Your task to perform on an android device: Go to CNN.com Image 0: 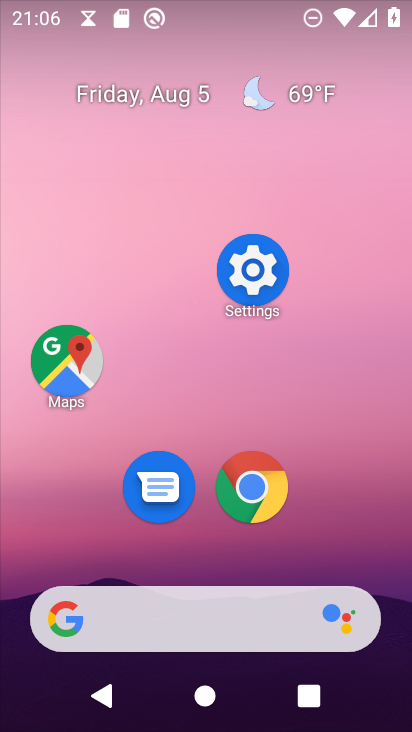
Step 0: click (251, 495)
Your task to perform on an android device: Go to CNN.com Image 1: 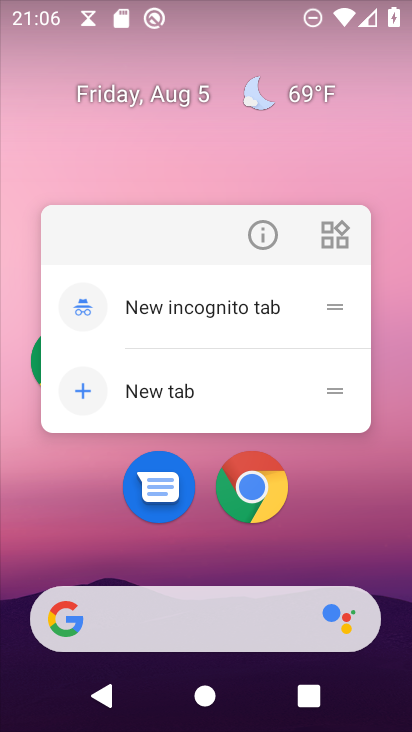
Step 1: click (251, 495)
Your task to perform on an android device: Go to CNN.com Image 2: 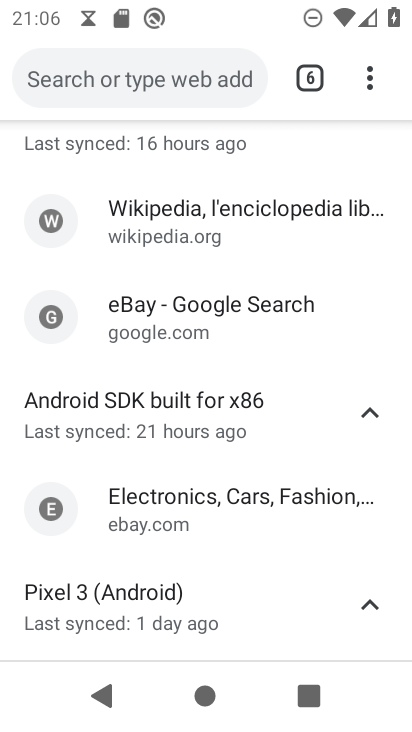
Step 2: drag from (371, 82) to (265, 162)
Your task to perform on an android device: Go to CNN.com Image 3: 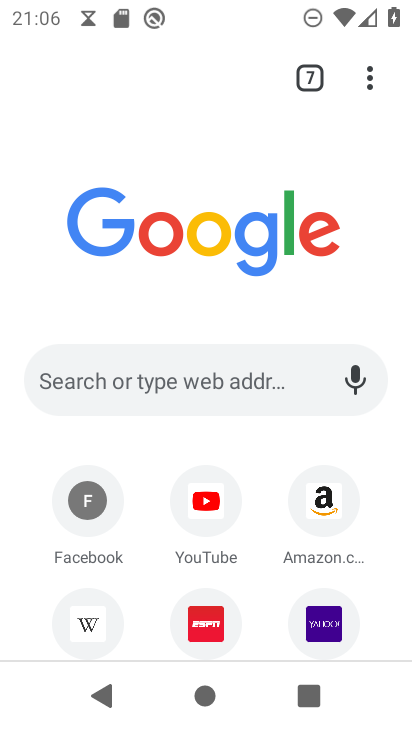
Step 3: drag from (272, 602) to (263, 315)
Your task to perform on an android device: Go to CNN.com Image 4: 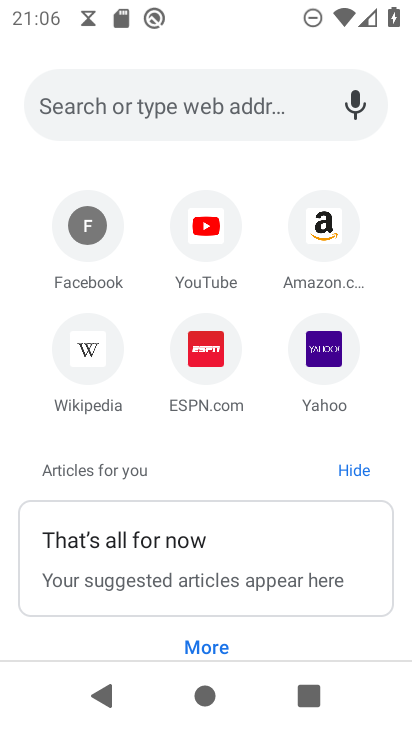
Step 4: drag from (264, 272) to (245, 476)
Your task to perform on an android device: Go to CNN.com Image 5: 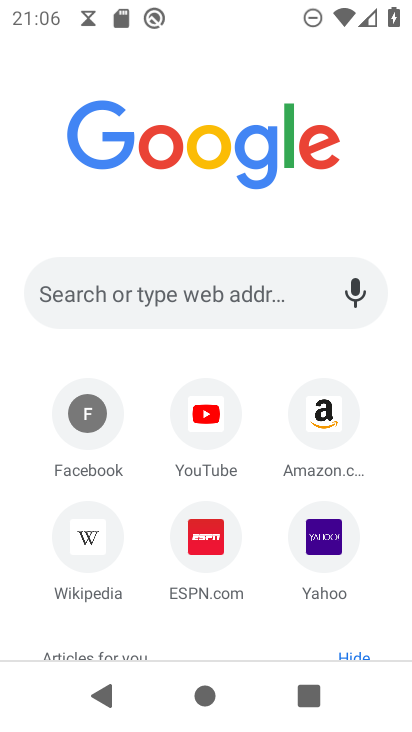
Step 5: click (82, 298)
Your task to perform on an android device: Go to CNN.com Image 6: 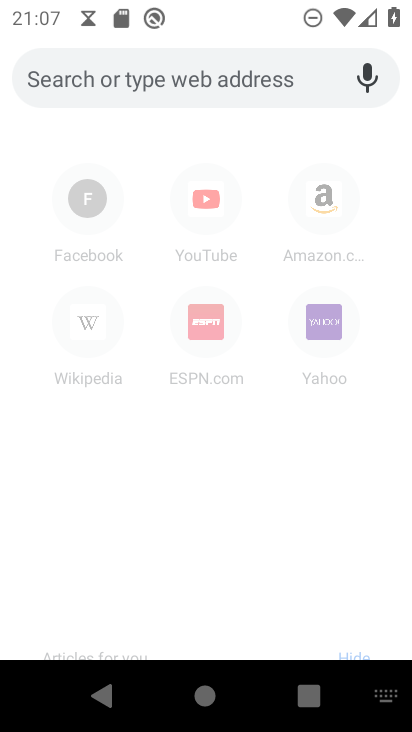
Step 6: type "CNN.com"
Your task to perform on an android device: Go to CNN.com Image 7: 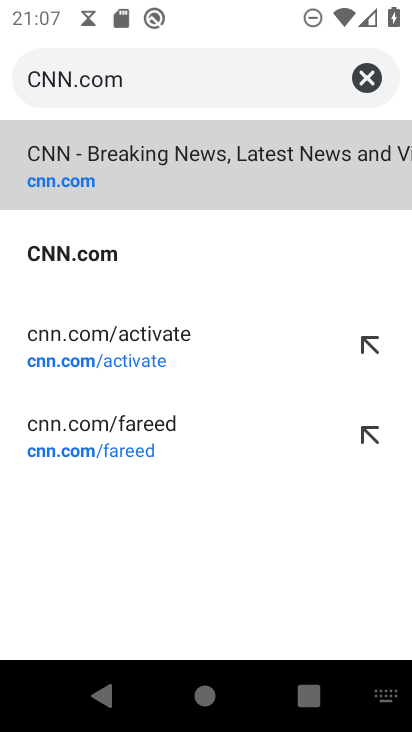
Step 7: click (197, 181)
Your task to perform on an android device: Go to CNN.com Image 8: 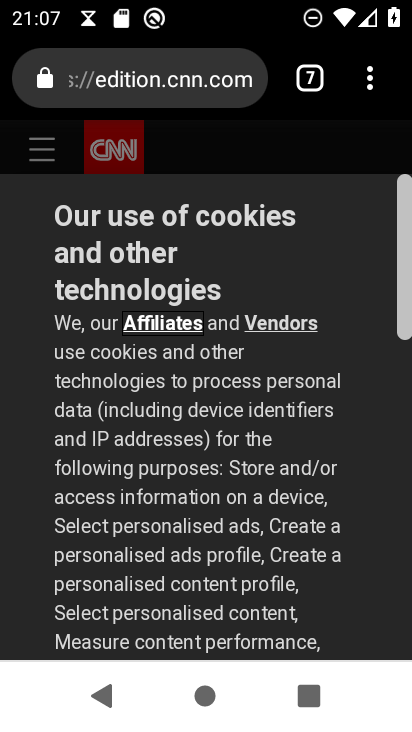
Step 8: drag from (186, 553) to (348, 101)
Your task to perform on an android device: Go to CNN.com Image 9: 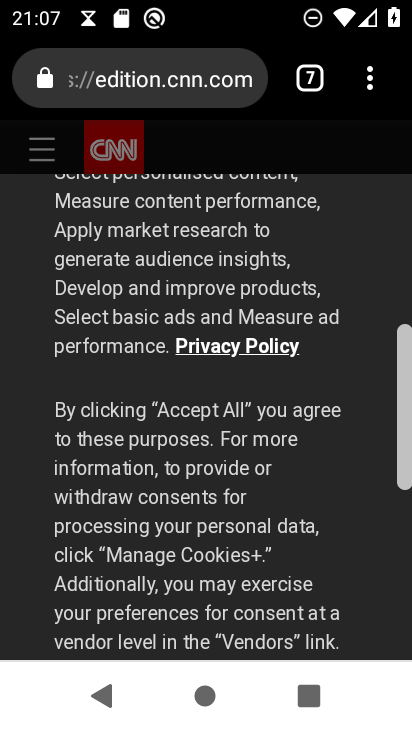
Step 9: drag from (211, 604) to (394, 144)
Your task to perform on an android device: Go to CNN.com Image 10: 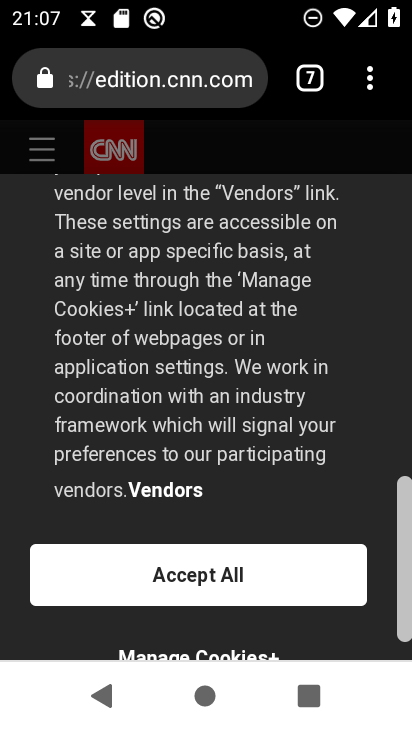
Step 10: click (198, 578)
Your task to perform on an android device: Go to CNN.com Image 11: 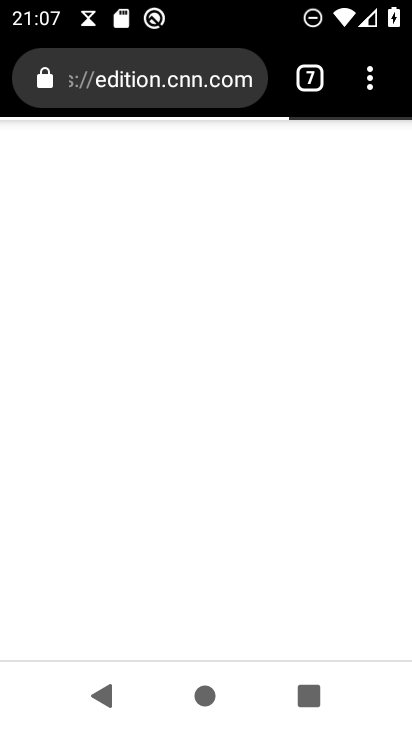
Step 11: task complete